Your task to perform on an android device: turn off wifi Image 0: 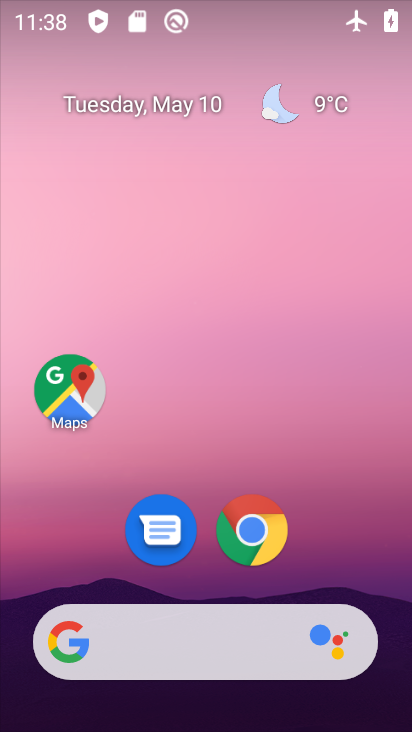
Step 0: drag from (337, 10) to (399, 616)
Your task to perform on an android device: turn off wifi Image 1: 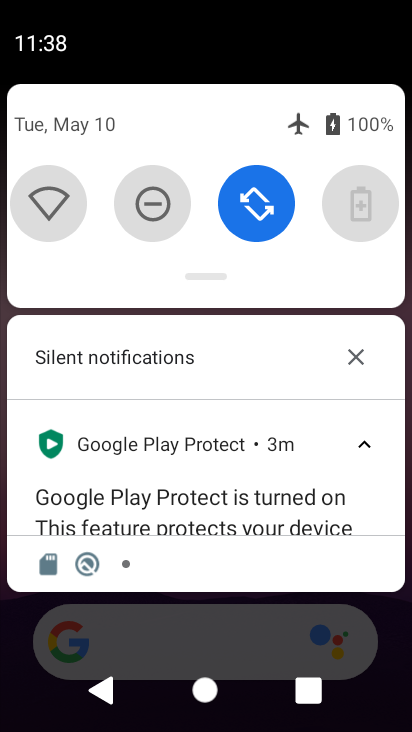
Step 1: task complete